Your task to perform on an android device: Do I have any events tomorrow? Image 0: 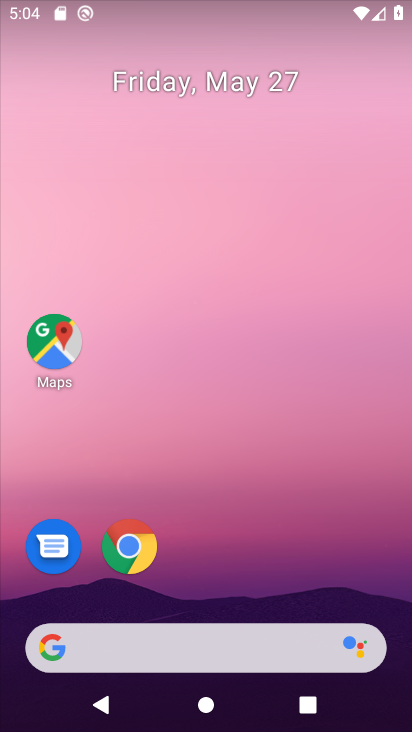
Step 0: drag from (253, 538) to (202, 27)
Your task to perform on an android device: Do I have any events tomorrow? Image 1: 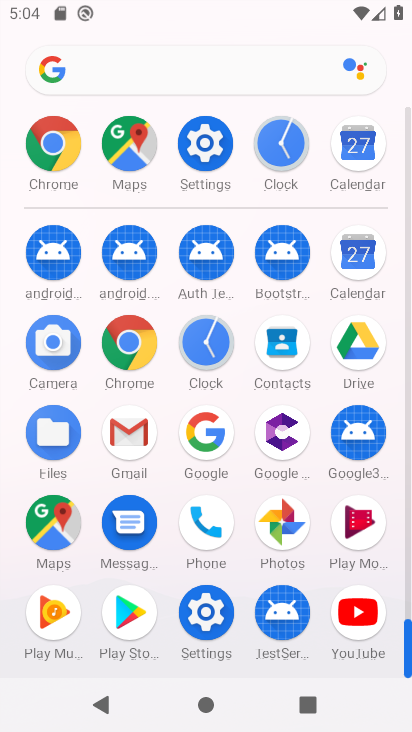
Step 1: drag from (18, 597) to (35, 214)
Your task to perform on an android device: Do I have any events tomorrow? Image 2: 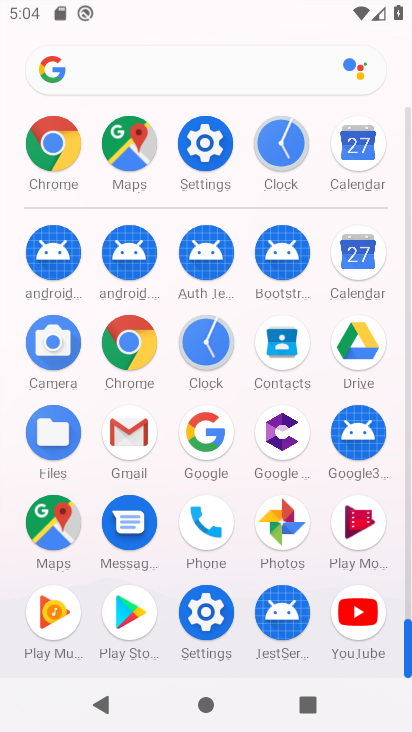
Step 2: click (358, 243)
Your task to perform on an android device: Do I have any events tomorrow? Image 3: 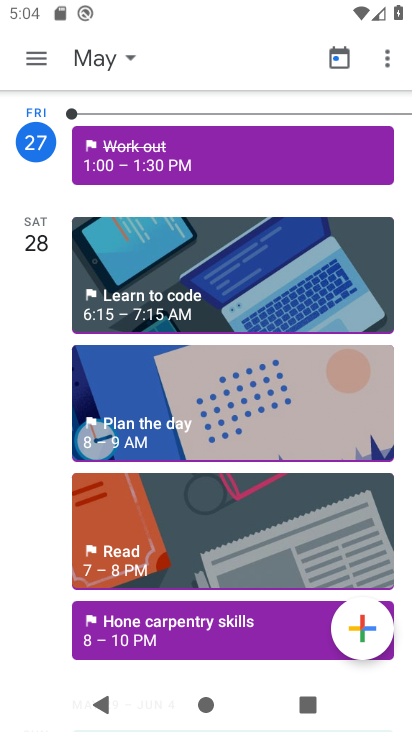
Step 3: click (39, 55)
Your task to perform on an android device: Do I have any events tomorrow? Image 4: 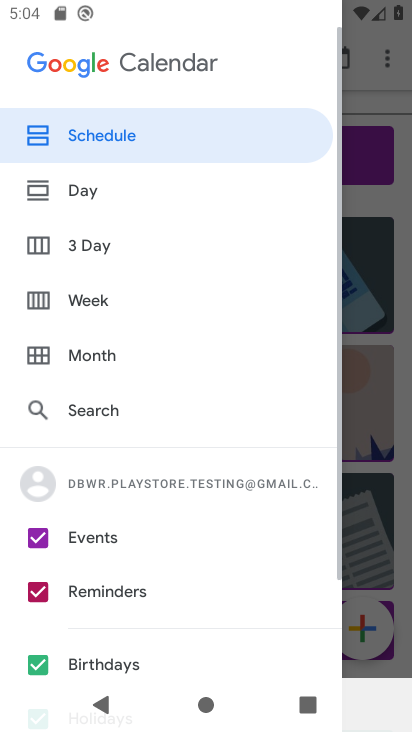
Step 4: click (87, 189)
Your task to perform on an android device: Do I have any events tomorrow? Image 5: 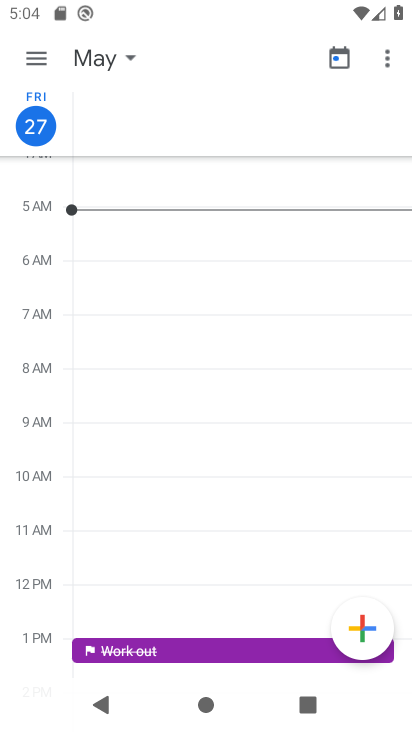
Step 5: click (45, 55)
Your task to perform on an android device: Do I have any events tomorrow? Image 6: 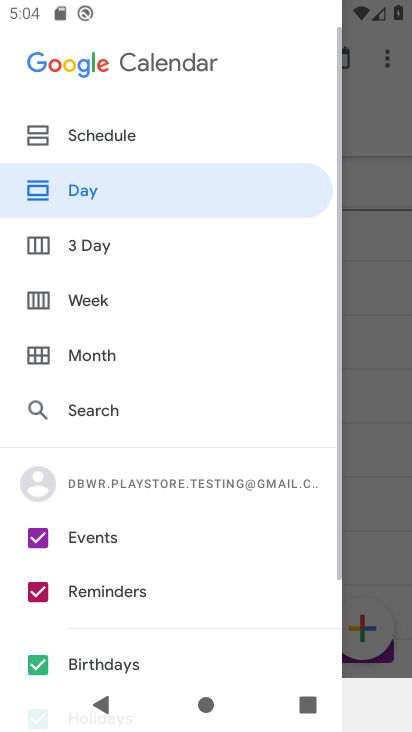
Step 6: click (107, 195)
Your task to perform on an android device: Do I have any events tomorrow? Image 7: 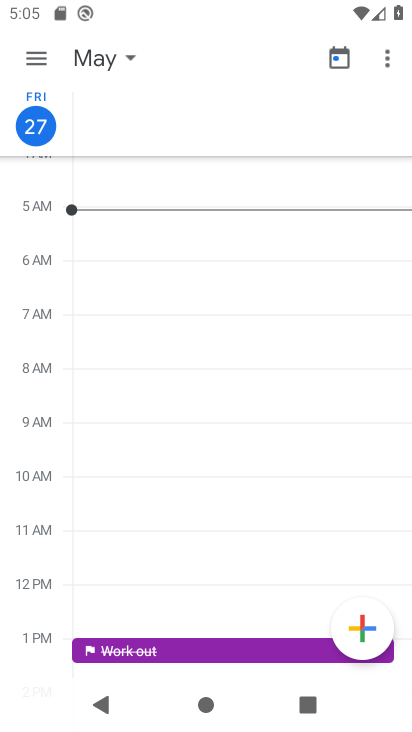
Step 7: task complete